Your task to perform on an android device: change your default location settings in chrome Image 0: 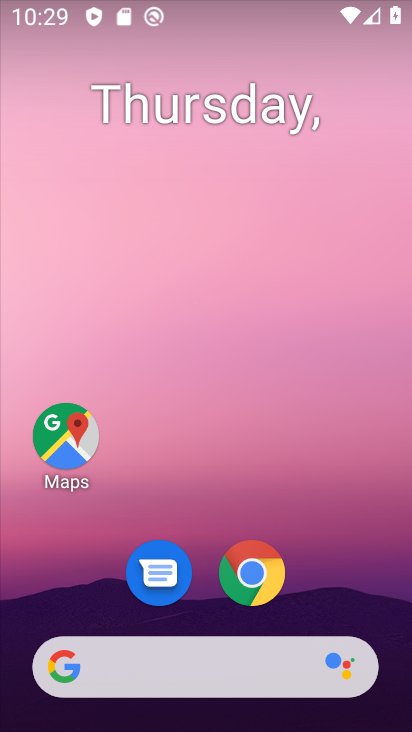
Step 0: drag from (330, 447) to (317, 151)
Your task to perform on an android device: change your default location settings in chrome Image 1: 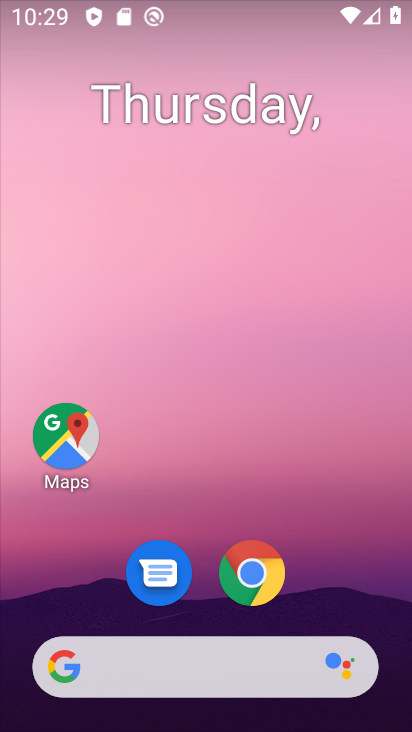
Step 1: click (263, 570)
Your task to perform on an android device: change your default location settings in chrome Image 2: 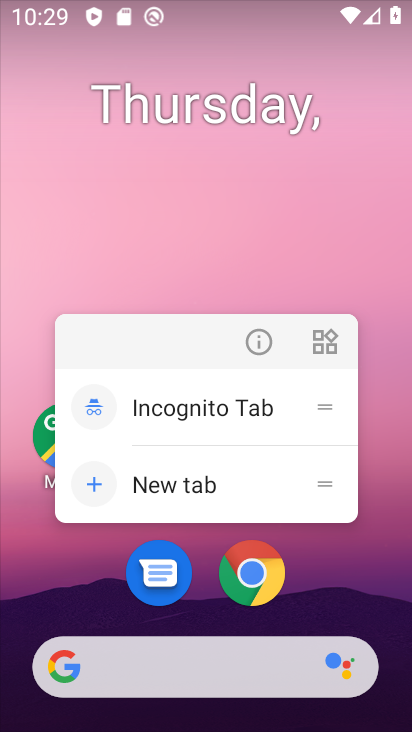
Step 2: click (249, 570)
Your task to perform on an android device: change your default location settings in chrome Image 3: 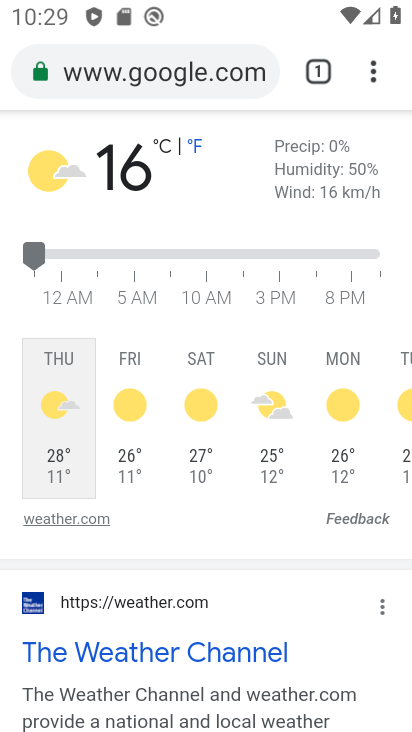
Step 3: click (378, 70)
Your task to perform on an android device: change your default location settings in chrome Image 4: 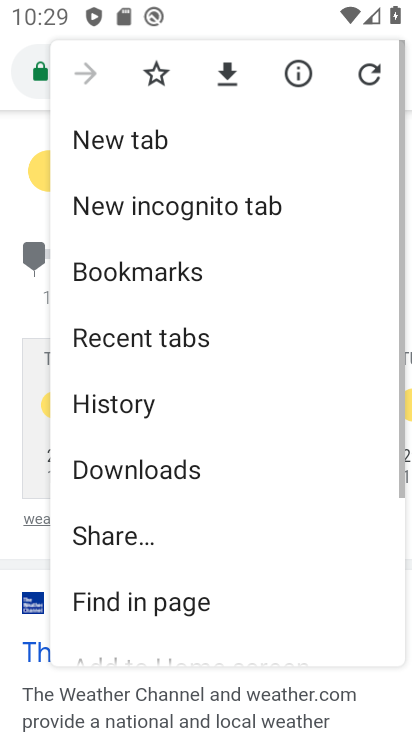
Step 4: drag from (168, 560) to (233, 114)
Your task to perform on an android device: change your default location settings in chrome Image 5: 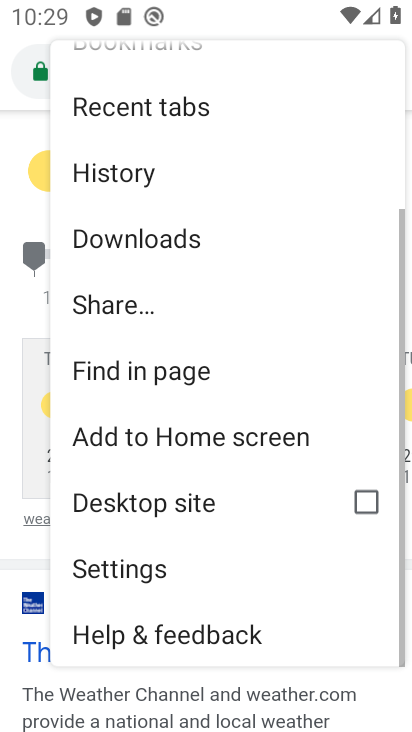
Step 5: click (161, 585)
Your task to perform on an android device: change your default location settings in chrome Image 6: 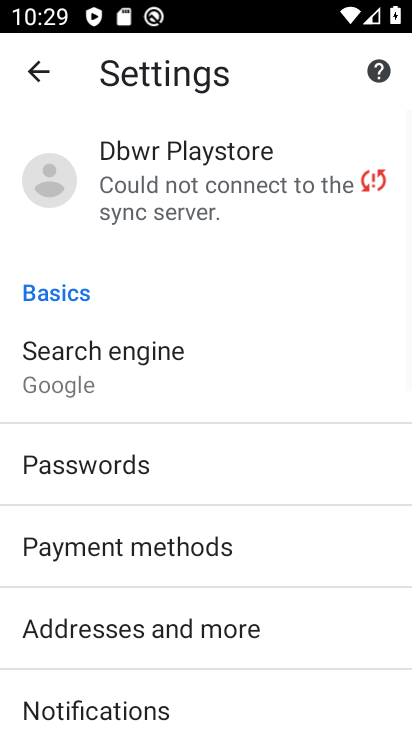
Step 6: click (148, 385)
Your task to perform on an android device: change your default location settings in chrome Image 7: 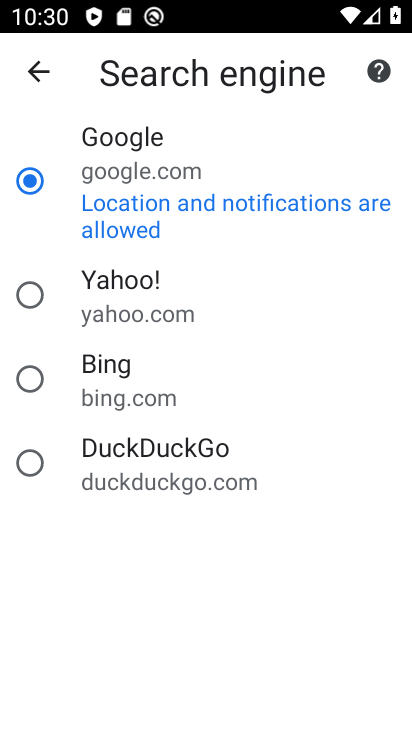
Step 7: task complete